Your task to perform on an android device: toggle pop-ups in chrome Image 0: 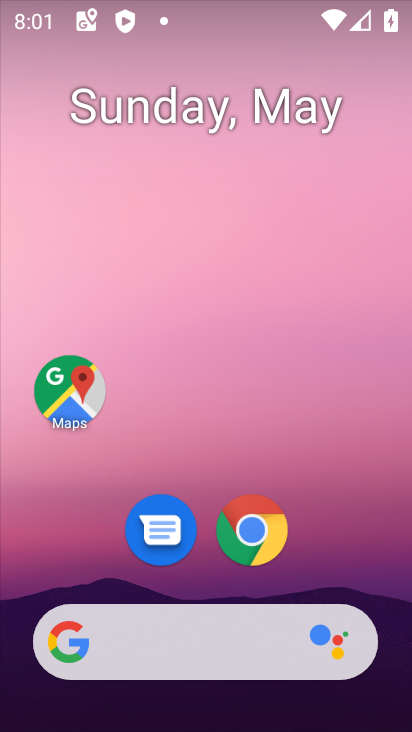
Step 0: click (259, 528)
Your task to perform on an android device: toggle pop-ups in chrome Image 1: 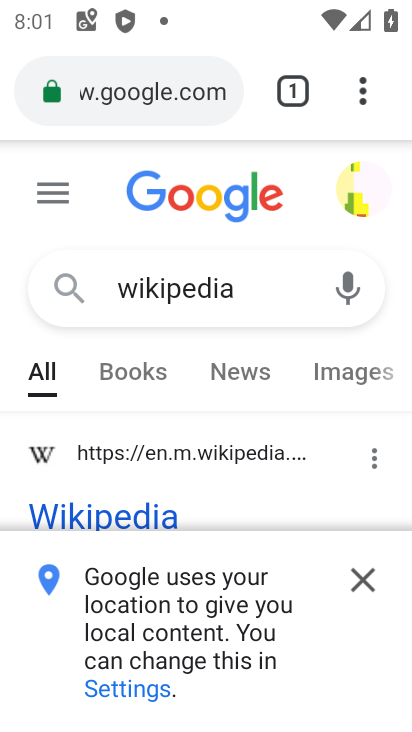
Step 1: click (363, 91)
Your task to perform on an android device: toggle pop-ups in chrome Image 2: 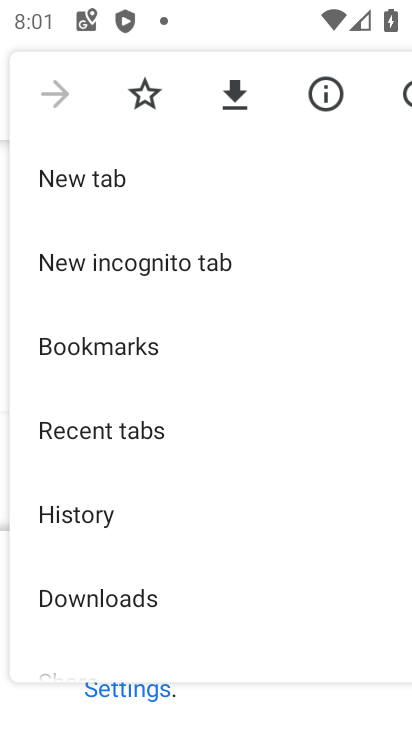
Step 2: drag from (202, 541) to (152, 147)
Your task to perform on an android device: toggle pop-ups in chrome Image 3: 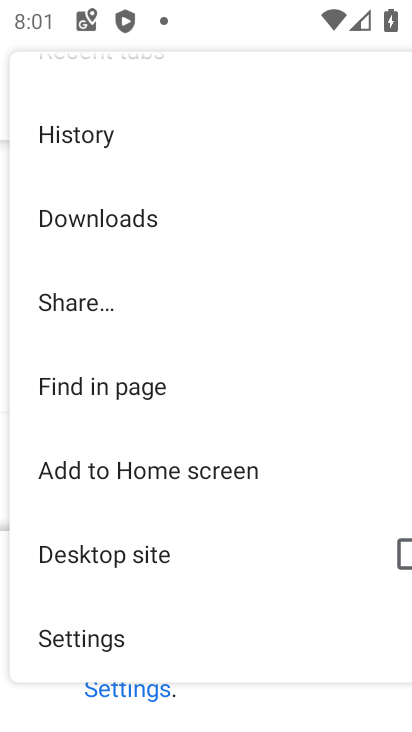
Step 3: click (92, 634)
Your task to perform on an android device: toggle pop-ups in chrome Image 4: 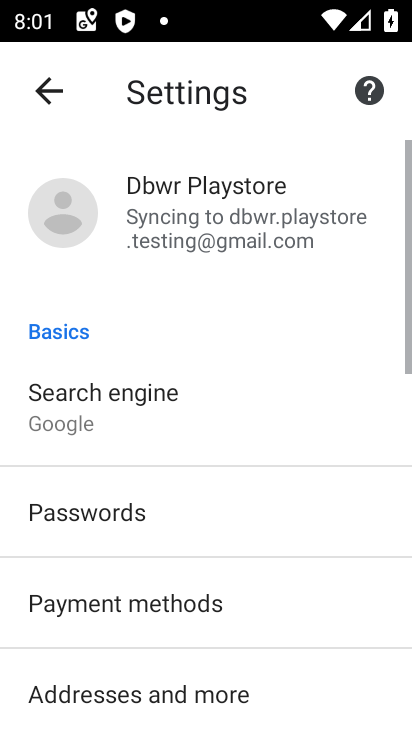
Step 4: drag from (155, 625) to (157, 140)
Your task to perform on an android device: toggle pop-ups in chrome Image 5: 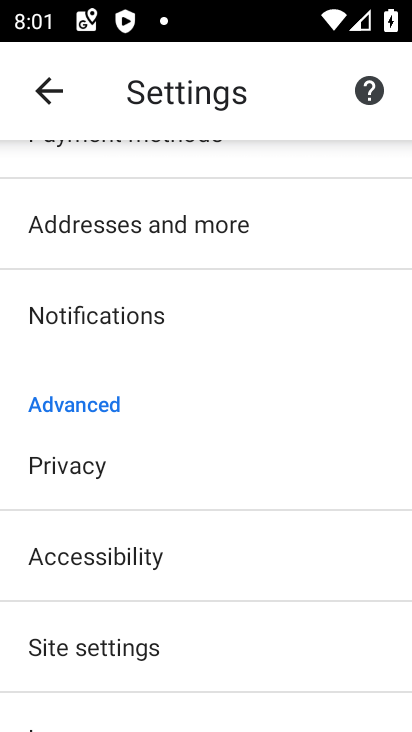
Step 5: drag from (149, 547) to (144, 260)
Your task to perform on an android device: toggle pop-ups in chrome Image 6: 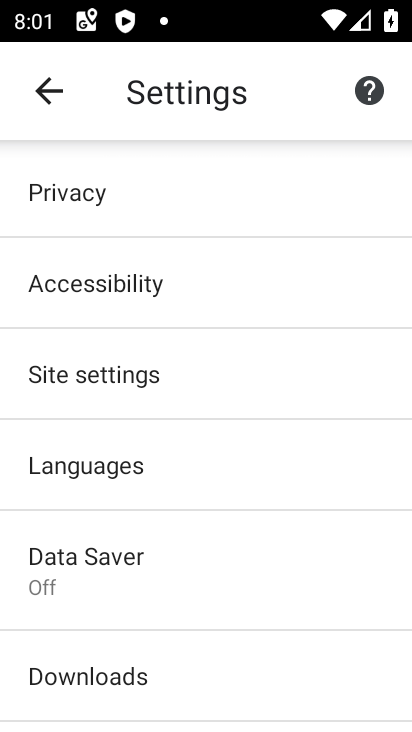
Step 6: click (81, 375)
Your task to perform on an android device: toggle pop-ups in chrome Image 7: 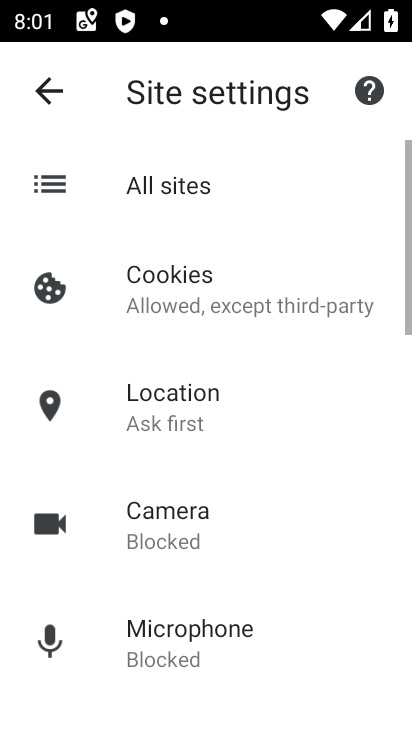
Step 7: drag from (212, 614) to (213, 145)
Your task to perform on an android device: toggle pop-ups in chrome Image 8: 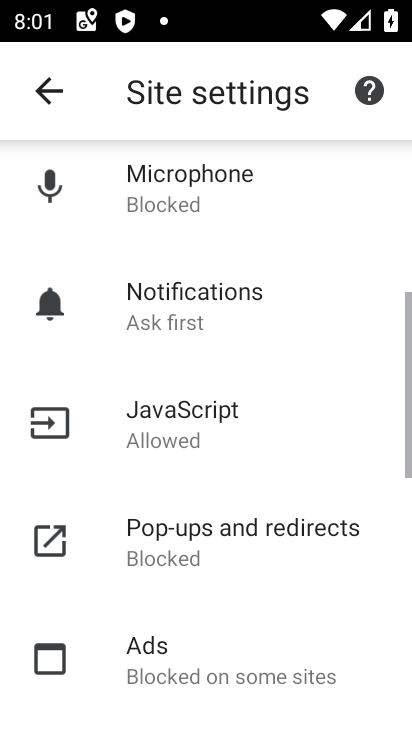
Step 8: click (208, 524)
Your task to perform on an android device: toggle pop-ups in chrome Image 9: 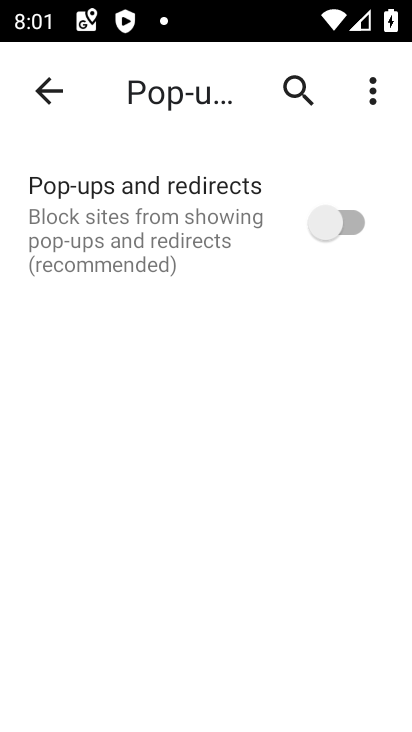
Step 9: click (324, 226)
Your task to perform on an android device: toggle pop-ups in chrome Image 10: 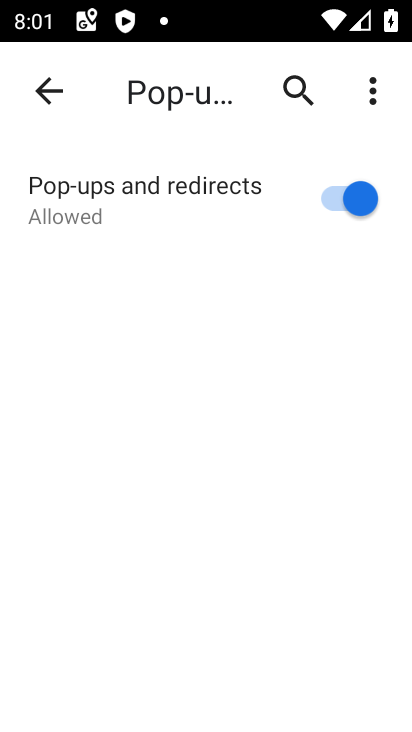
Step 10: task complete